Your task to perform on an android device: move a message to another label in the gmail app Image 0: 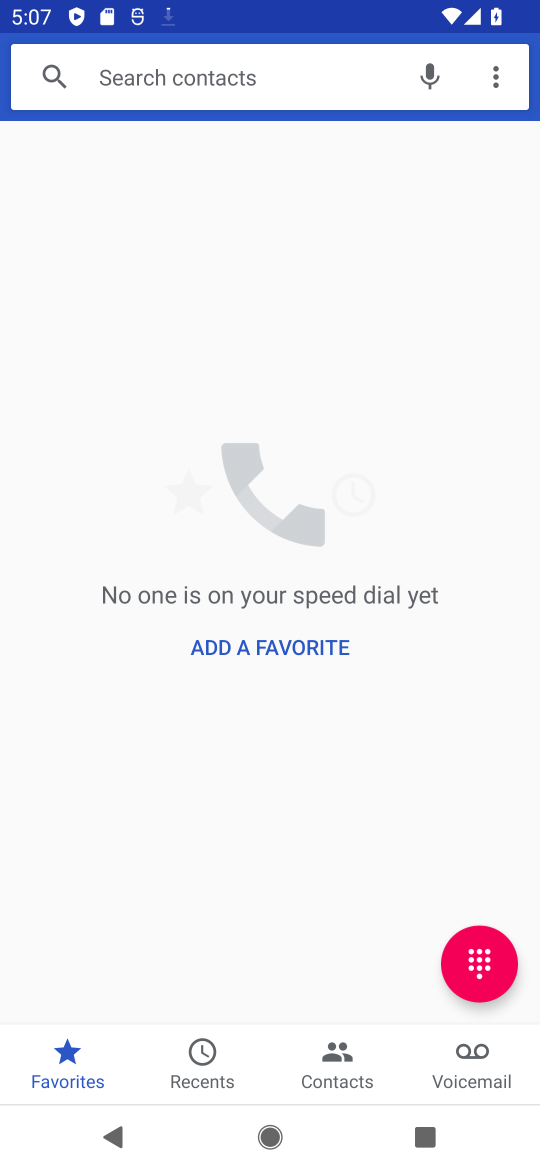
Step 0: press home button
Your task to perform on an android device: move a message to another label in the gmail app Image 1: 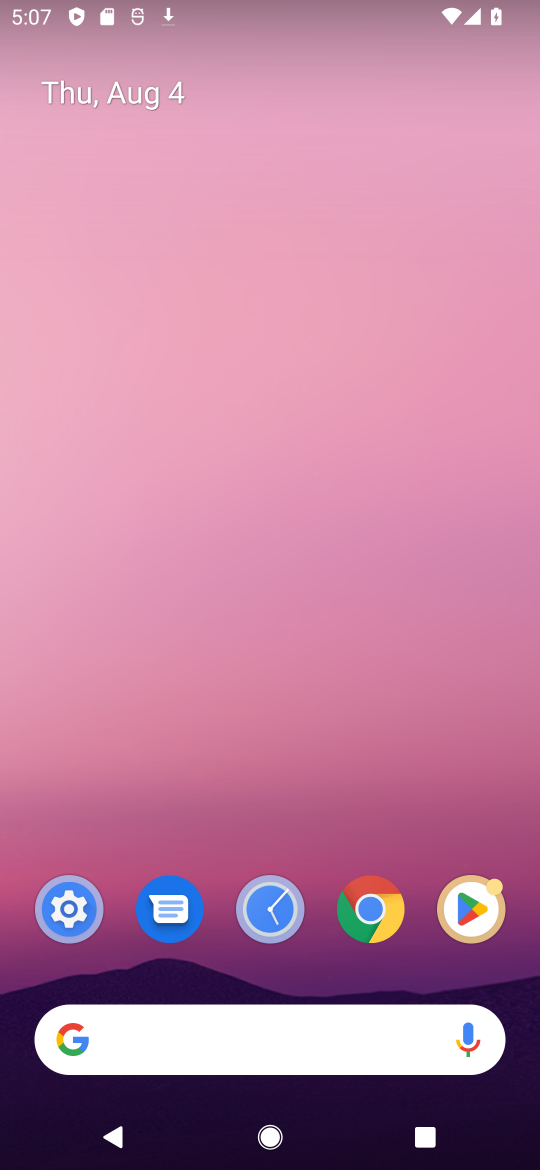
Step 1: drag from (181, 1027) to (254, 86)
Your task to perform on an android device: move a message to another label in the gmail app Image 2: 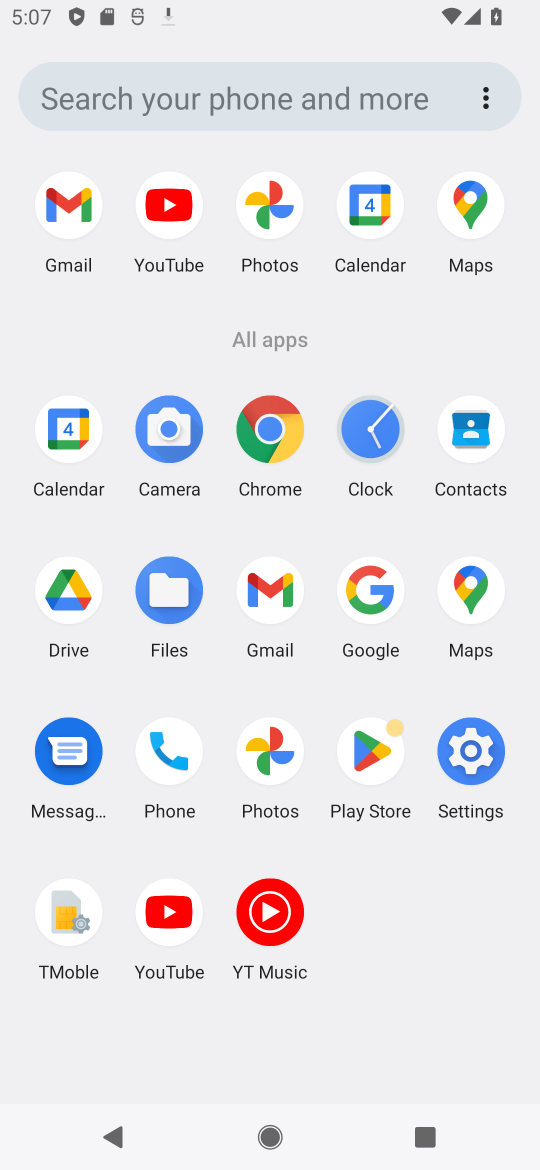
Step 2: click (70, 206)
Your task to perform on an android device: move a message to another label in the gmail app Image 3: 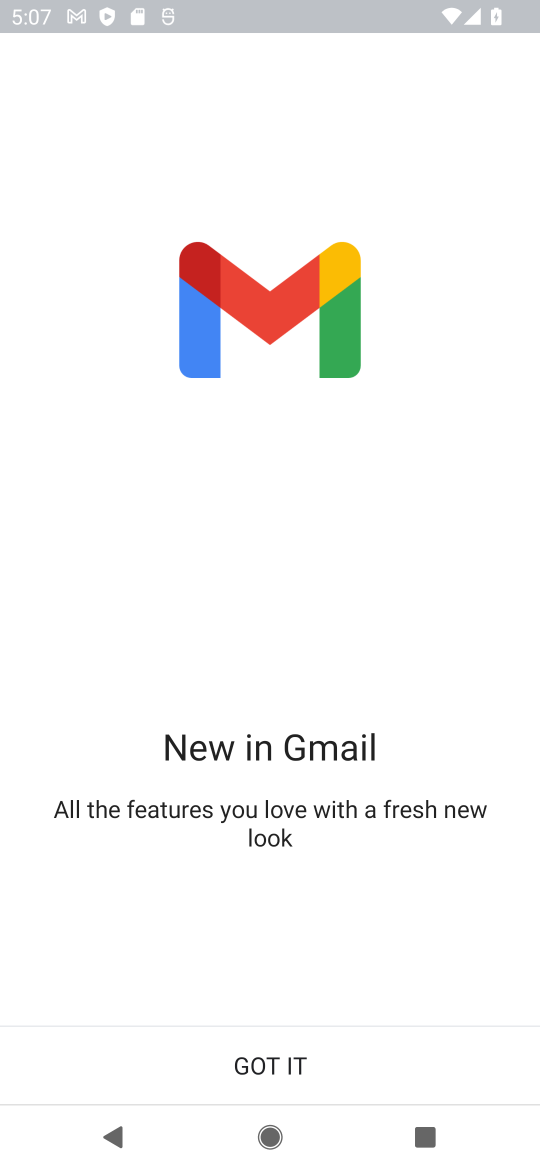
Step 3: click (299, 1065)
Your task to perform on an android device: move a message to another label in the gmail app Image 4: 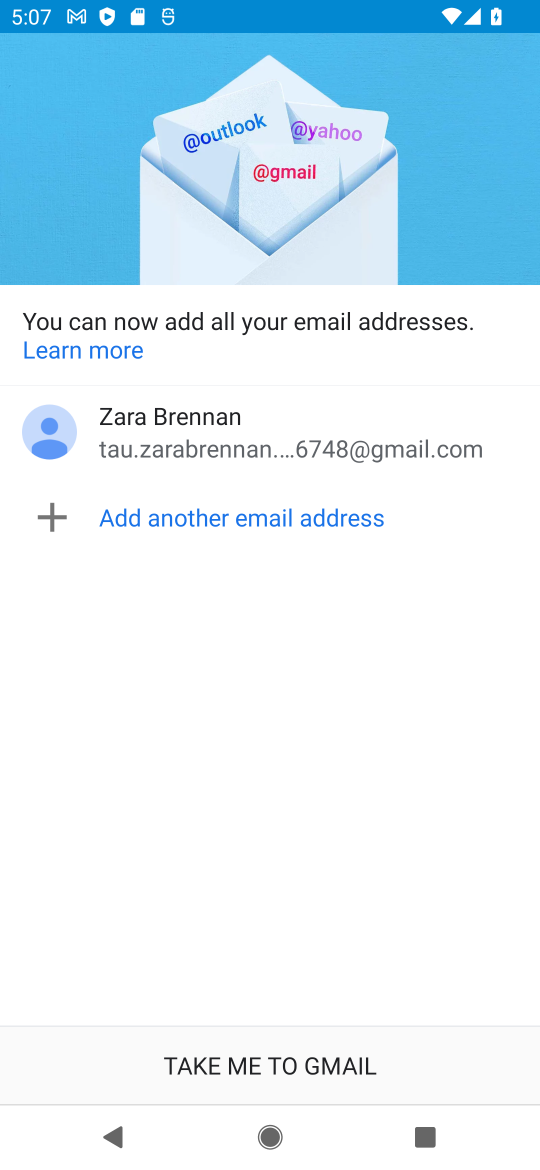
Step 4: click (299, 1065)
Your task to perform on an android device: move a message to another label in the gmail app Image 5: 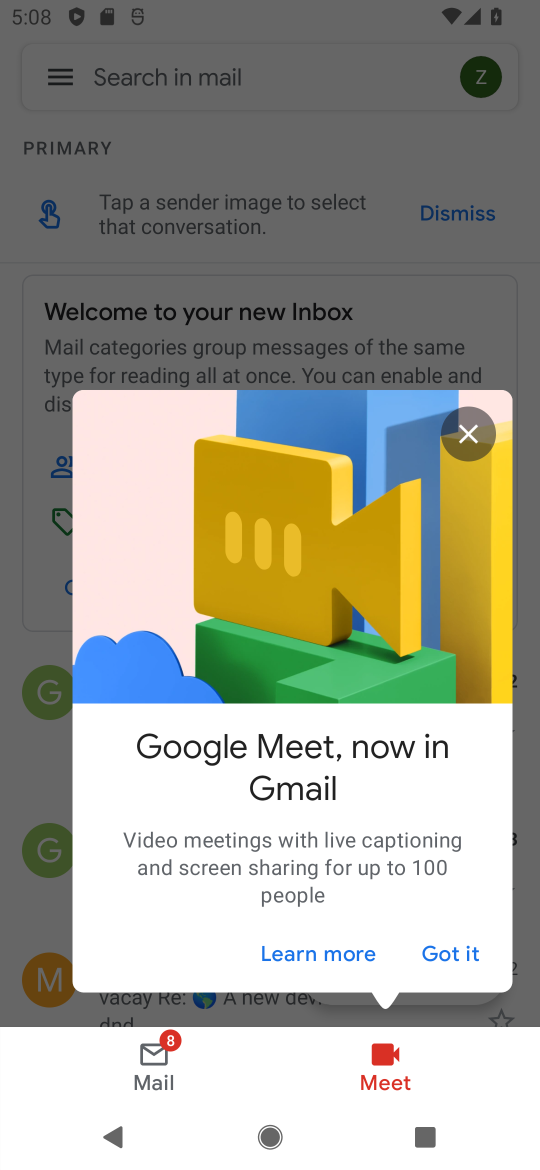
Step 5: click (442, 950)
Your task to perform on an android device: move a message to another label in the gmail app Image 6: 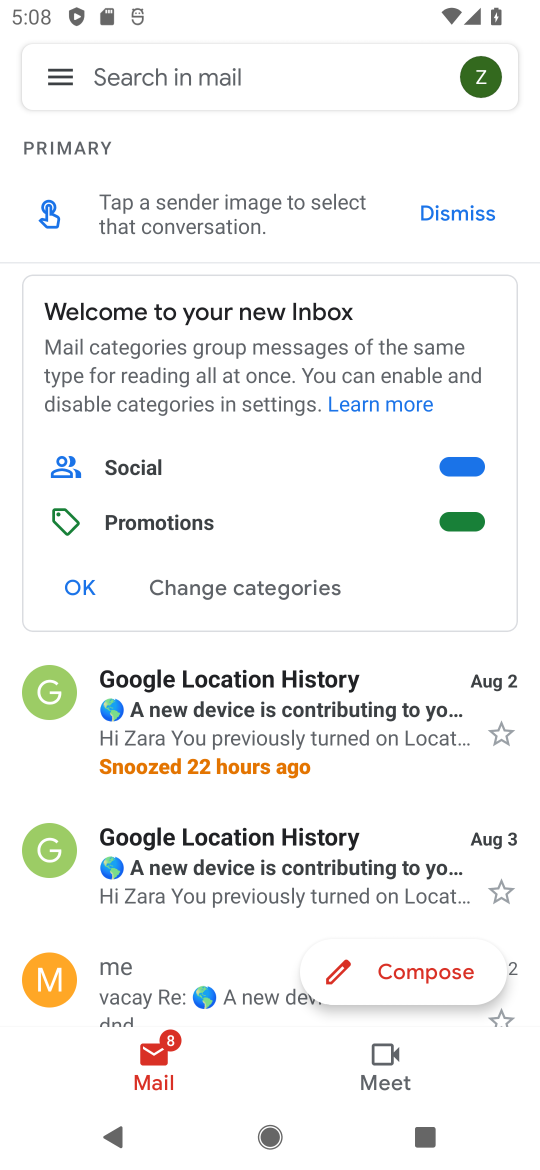
Step 6: click (293, 732)
Your task to perform on an android device: move a message to another label in the gmail app Image 7: 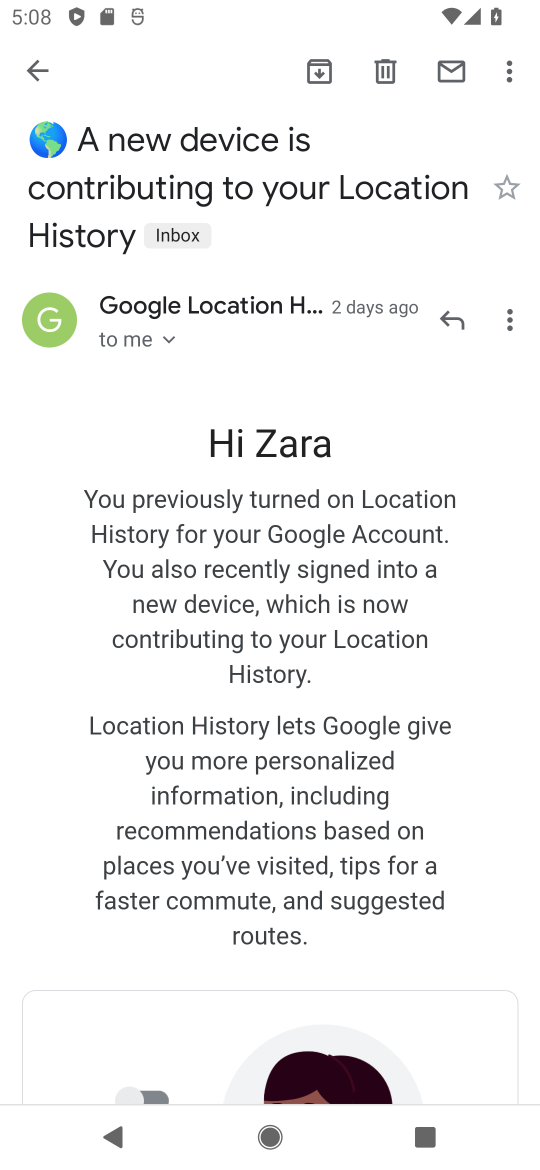
Step 7: click (506, 76)
Your task to perform on an android device: move a message to another label in the gmail app Image 8: 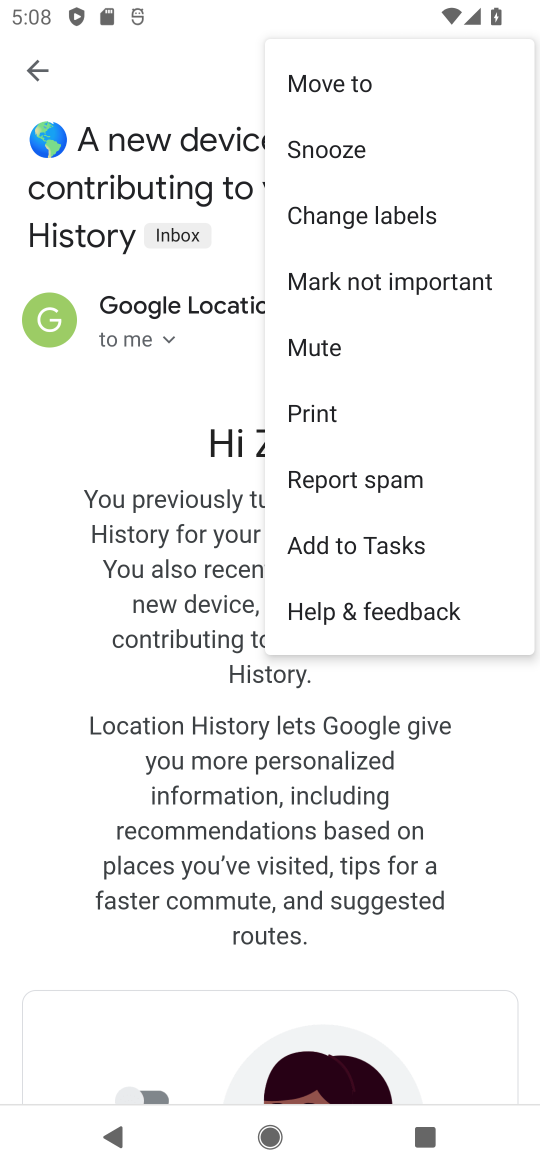
Step 8: click (361, 90)
Your task to perform on an android device: move a message to another label in the gmail app Image 9: 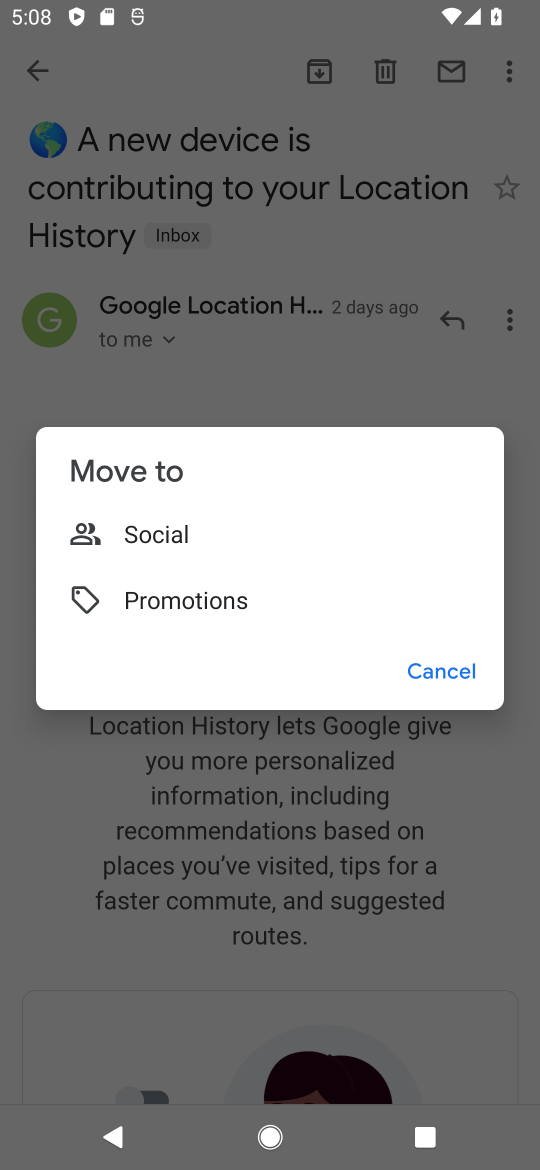
Step 9: click (187, 550)
Your task to perform on an android device: move a message to another label in the gmail app Image 10: 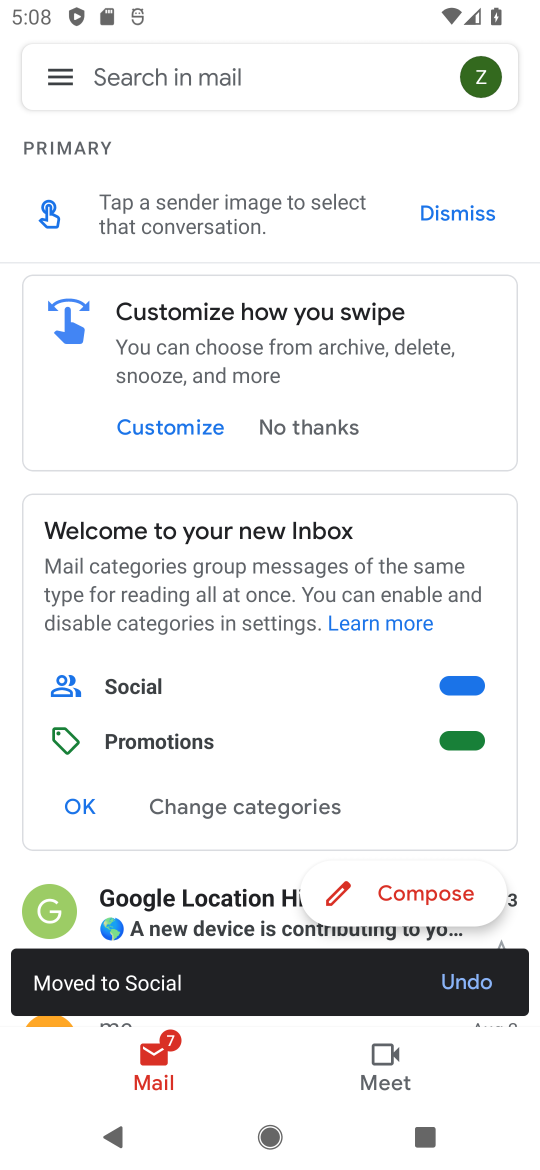
Step 10: task complete